Your task to perform on an android device: manage bookmarks in the chrome app Image 0: 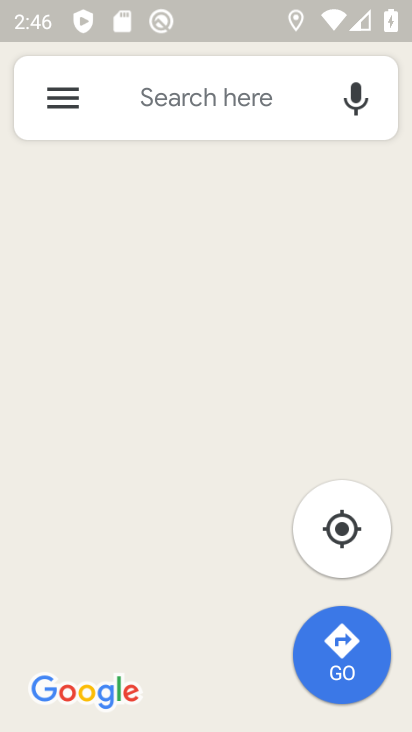
Step 0: press home button
Your task to perform on an android device: manage bookmarks in the chrome app Image 1: 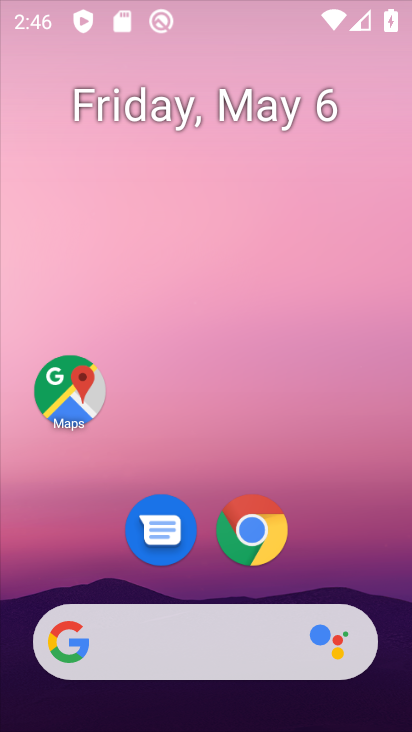
Step 1: drag from (179, 602) to (243, 170)
Your task to perform on an android device: manage bookmarks in the chrome app Image 2: 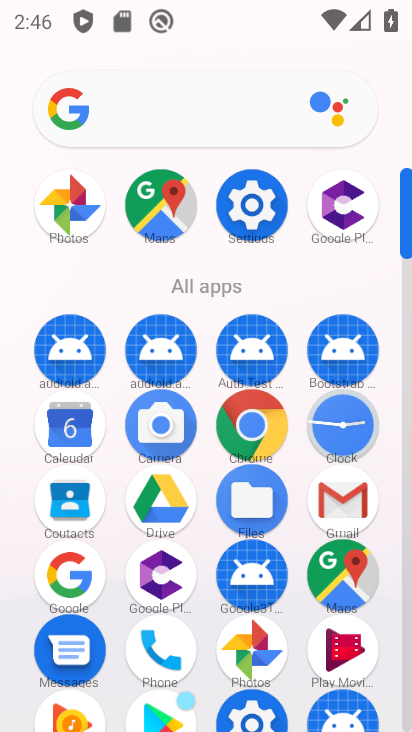
Step 2: click (249, 429)
Your task to perform on an android device: manage bookmarks in the chrome app Image 3: 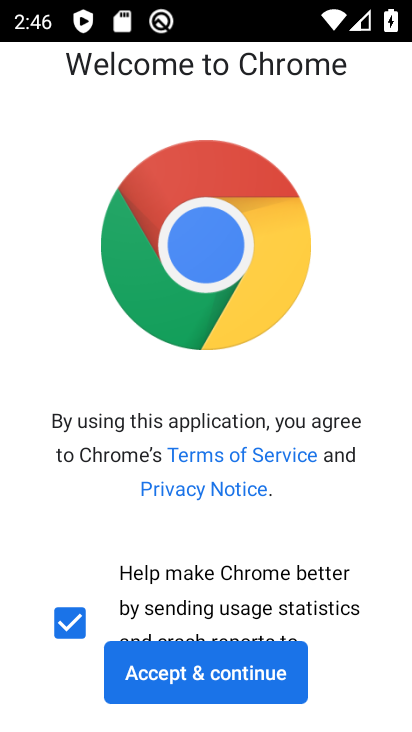
Step 3: click (236, 667)
Your task to perform on an android device: manage bookmarks in the chrome app Image 4: 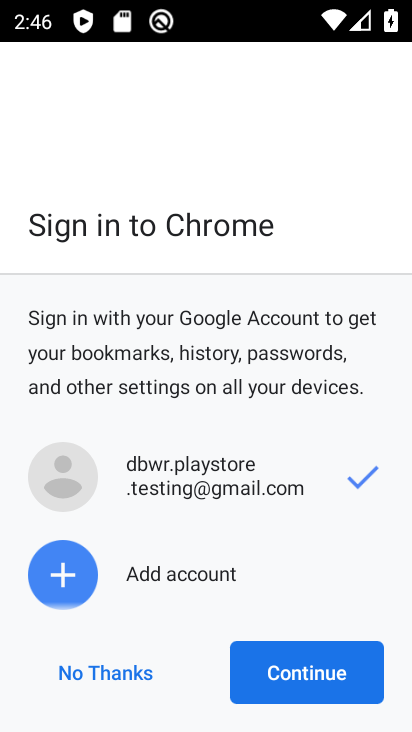
Step 4: click (298, 666)
Your task to perform on an android device: manage bookmarks in the chrome app Image 5: 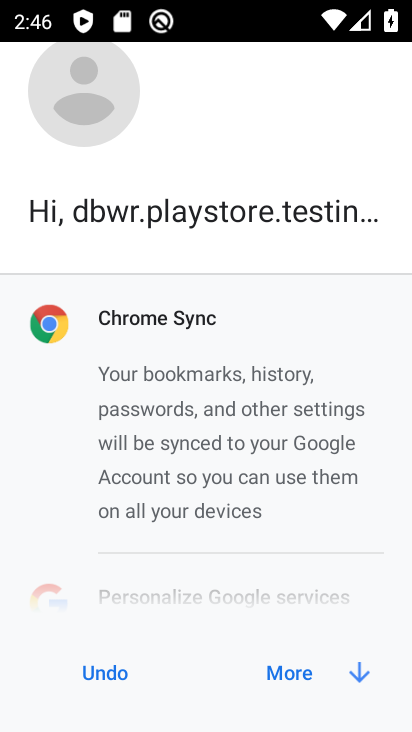
Step 5: click (298, 673)
Your task to perform on an android device: manage bookmarks in the chrome app Image 6: 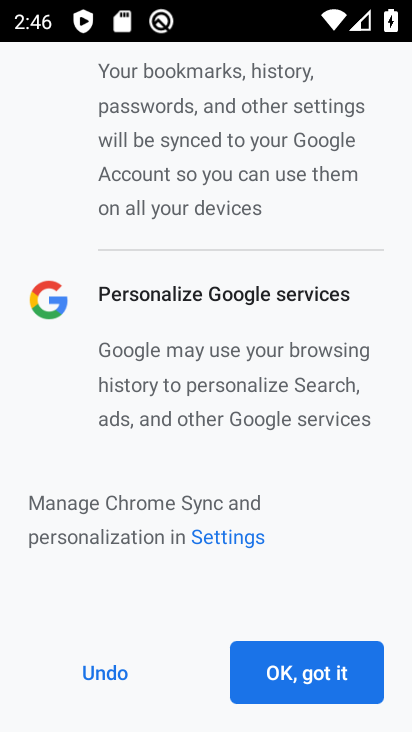
Step 6: click (293, 670)
Your task to perform on an android device: manage bookmarks in the chrome app Image 7: 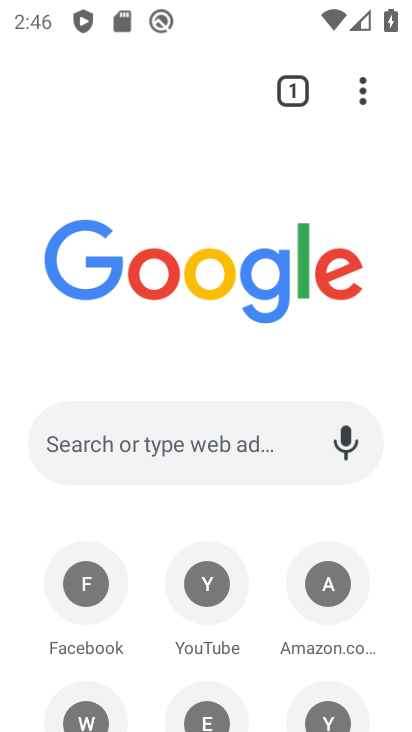
Step 7: click (367, 91)
Your task to perform on an android device: manage bookmarks in the chrome app Image 8: 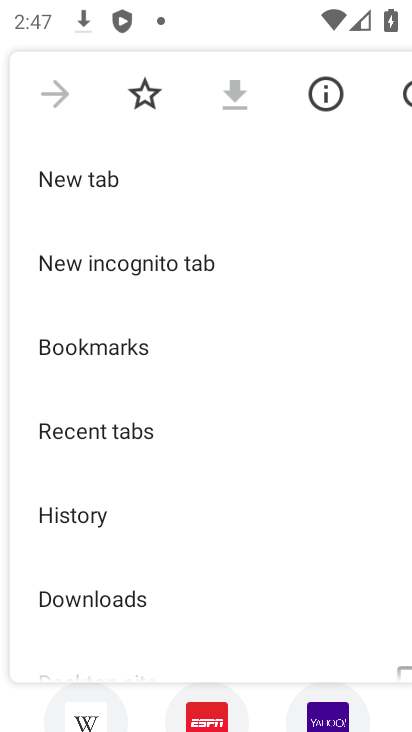
Step 8: drag from (237, 432) to (290, 47)
Your task to perform on an android device: manage bookmarks in the chrome app Image 9: 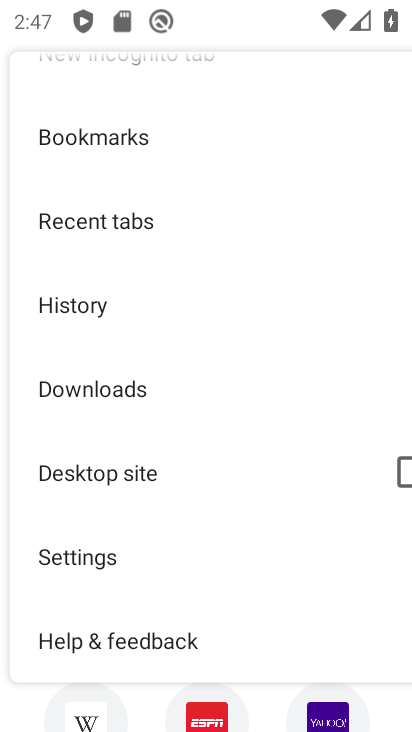
Step 9: click (125, 558)
Your task to perform on an android device: manage bookmarks in the chrome app Image 10: 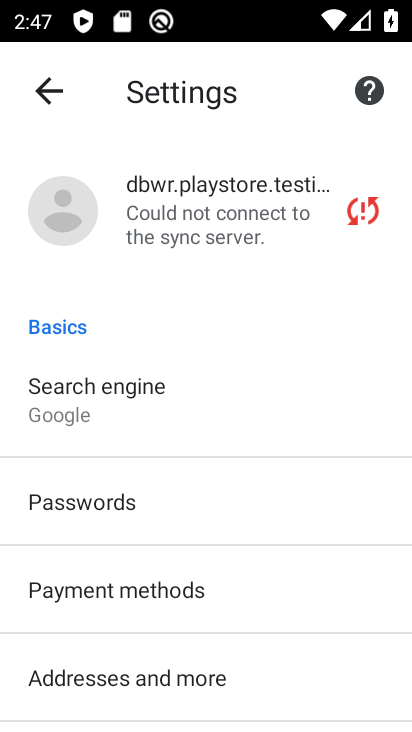
Step 10: drag from (201, 591) to (249, 362)
Your task to perform on an android device: manage bookmarks in the chrome app Image 11: 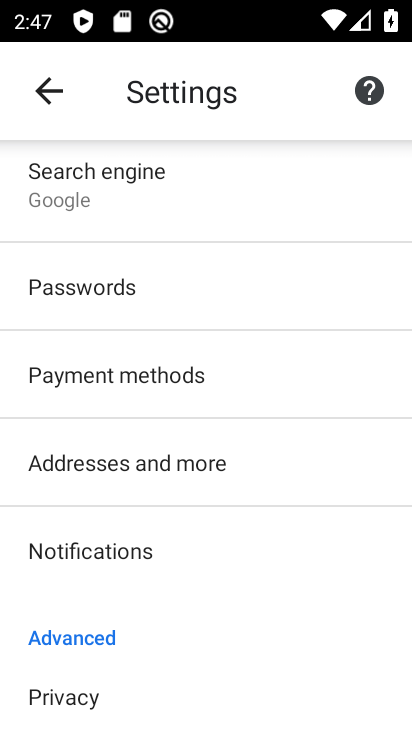
Step 11: click (44, 91)
Your task to perform on an android device: manage bookmarks in the chrome app Image 12: 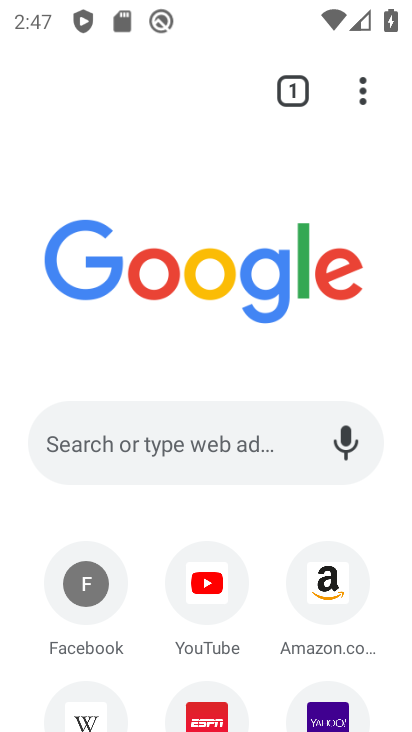
Step 12: click (359, 97)
Your task to perform on an android device: manage bookmarks in the chrome app Image 13: 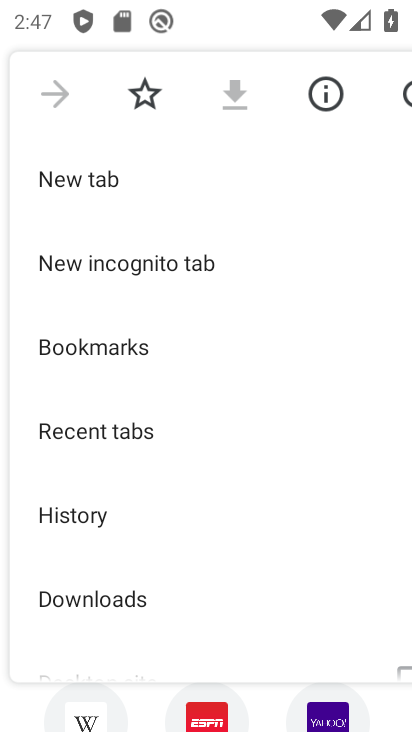
Step 13: drag from (134, 553) to (139, 288)
Your task to perform on an android device: manage bookmarks in the chrome app Image 14: 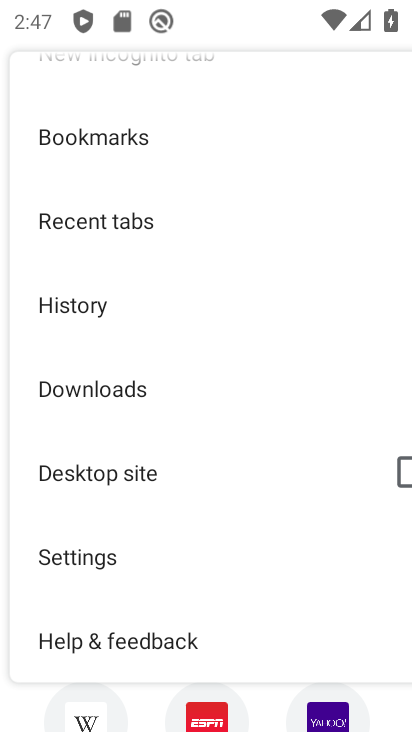
Step 14: click (123, 154)
Your task to perform on an android device: manage bookmarks in the chrome app Image 15: 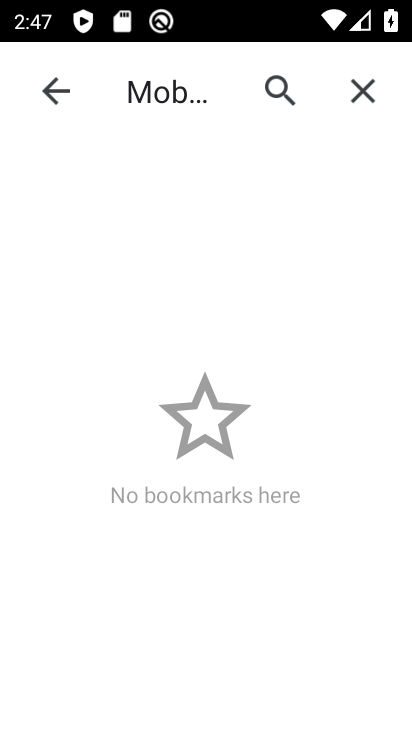
Step 15: task complete